Your task to perform on an android device: open a bookmark in the chrome app Image 0: 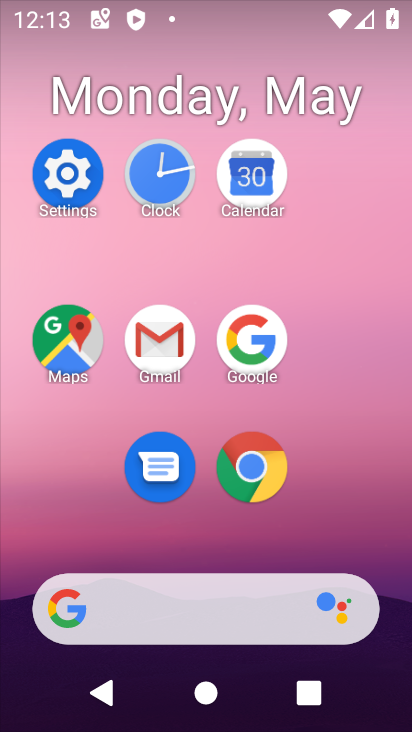
Step 0: click (262, 488)
Your task to perform on an android device: open a bookmark in the chrome app Image 1: 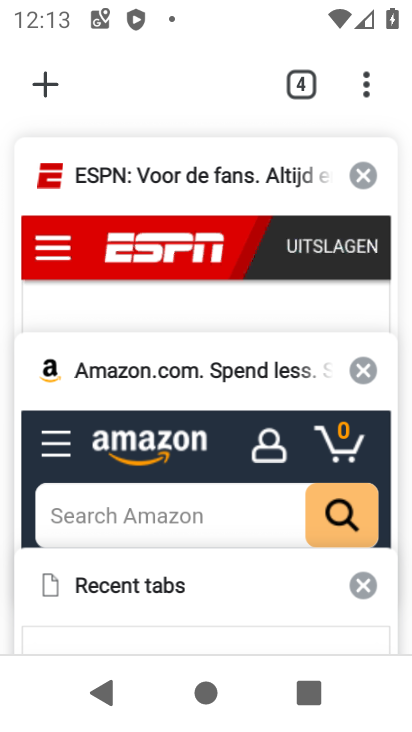
Step 1: click (359, 82)
Your task to perform on an android device: open a bookmark in the chrome app Image 2: 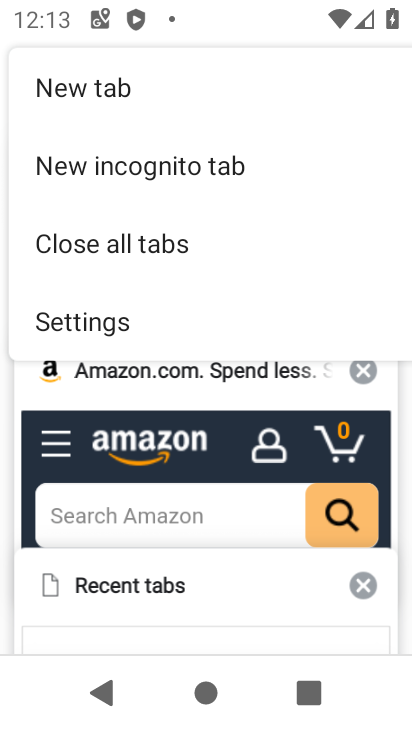
Step 2: drag from (183, 329) to (207, 120)
Your task to perform on an android device: open a bookmark in the chrome app Image 3: 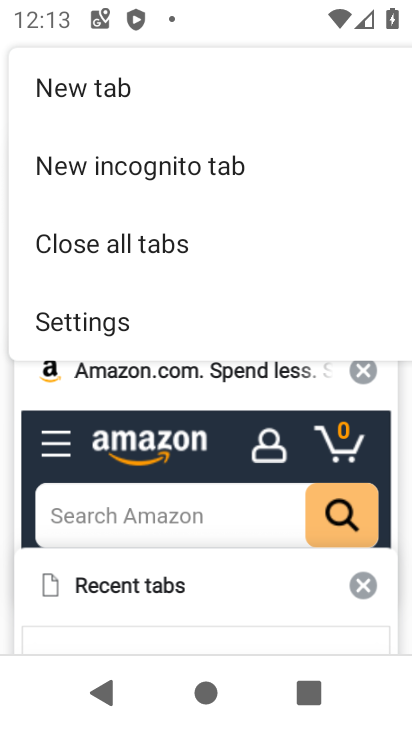
Step 3: drag from (179, 201) to (198, 369)
Your task to perform on an android device: open a bookmark in the chrome app Image 4: 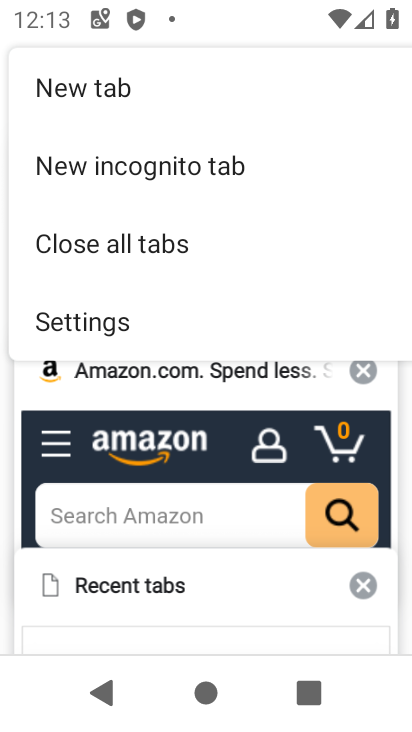
Step 4: click (78, 85)
Your task to perform on an android device: open a bookmark in the chrome app Image 5: 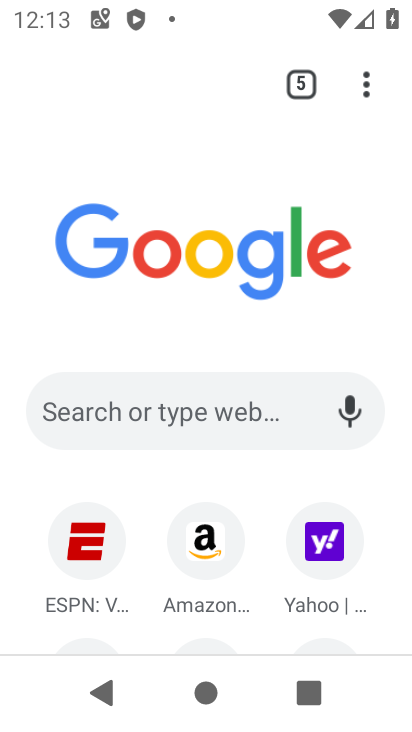
Step 5: click (374, 87)
Your task to perform on an android device: open a bookmark in the chrome app Image 6: 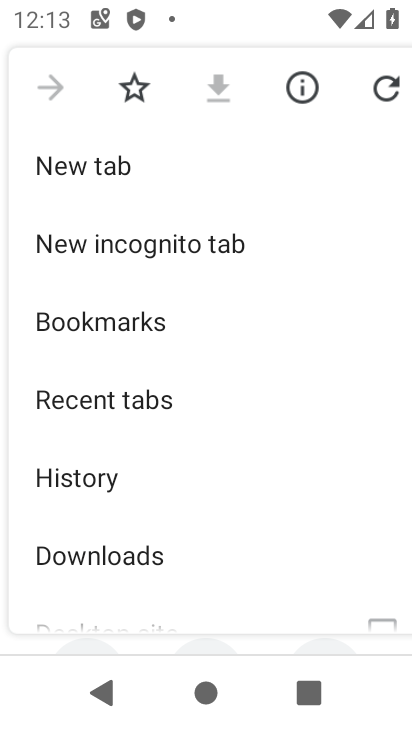
Step 6: click (85, 330)
Your task to perform on an android device: open a bookmark in the chrome app Image 7: 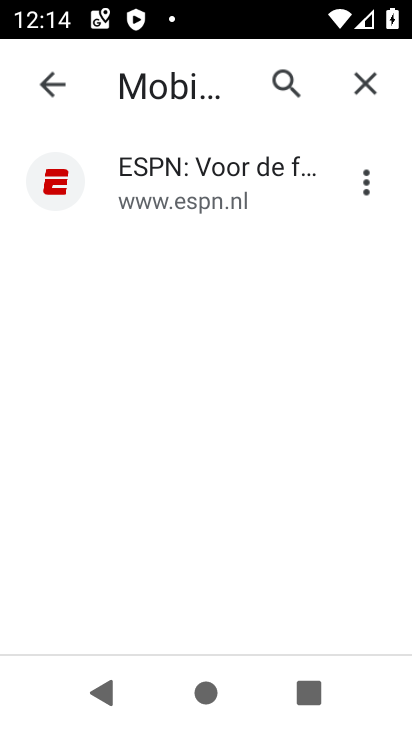
Step 7: task complete